Your task to perform on an android device: Open calendar and show me the third week of next month Image 0: 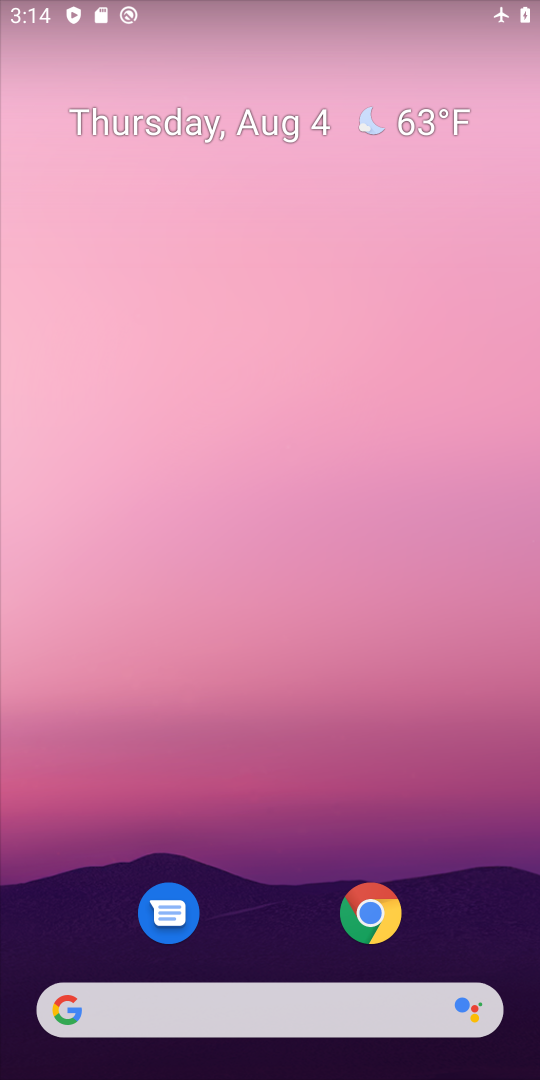
Step 0: drag from (317, 981) to (387, 7)
Your task to perform on an android device: Open calendar and show me the third week of next month Image 1: 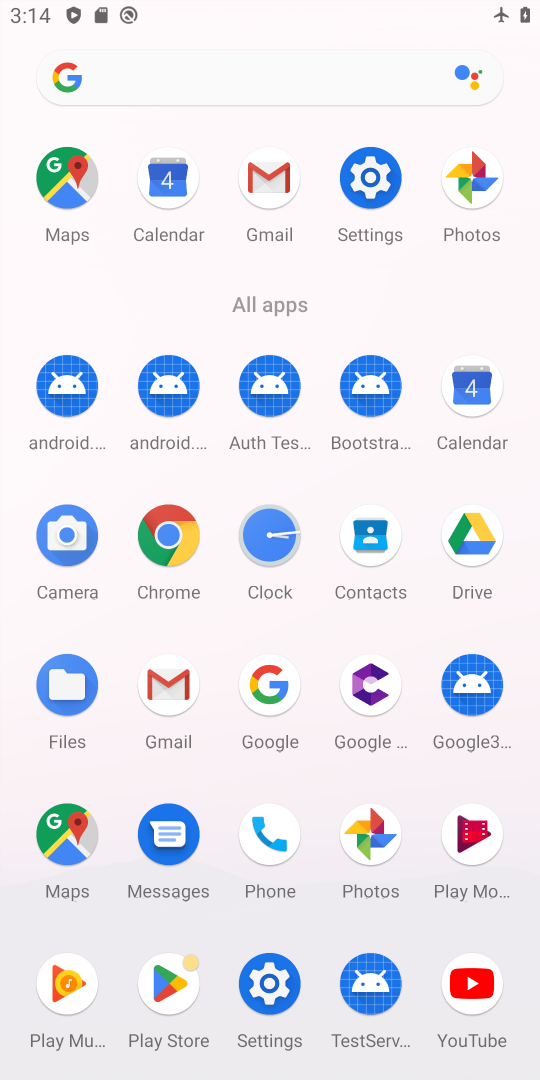
Step 1: click (476, 374)
Your task to perform on an android device: Open calendar and show me the third week of next month Image 2: 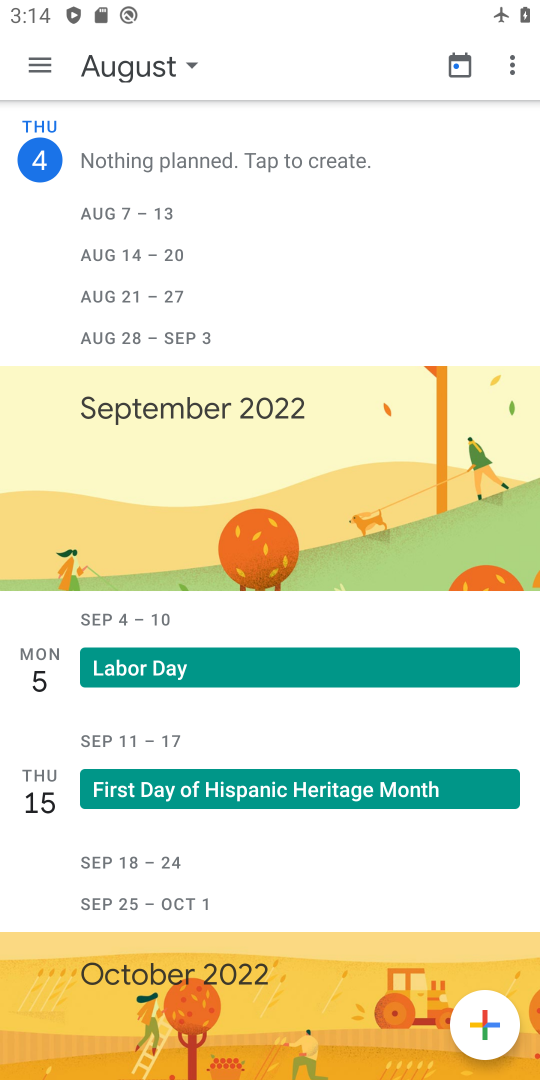
Step 2: click (191, 59)
Your task to perform on an android device: Open calendar and show me the third week of next month Image 3: 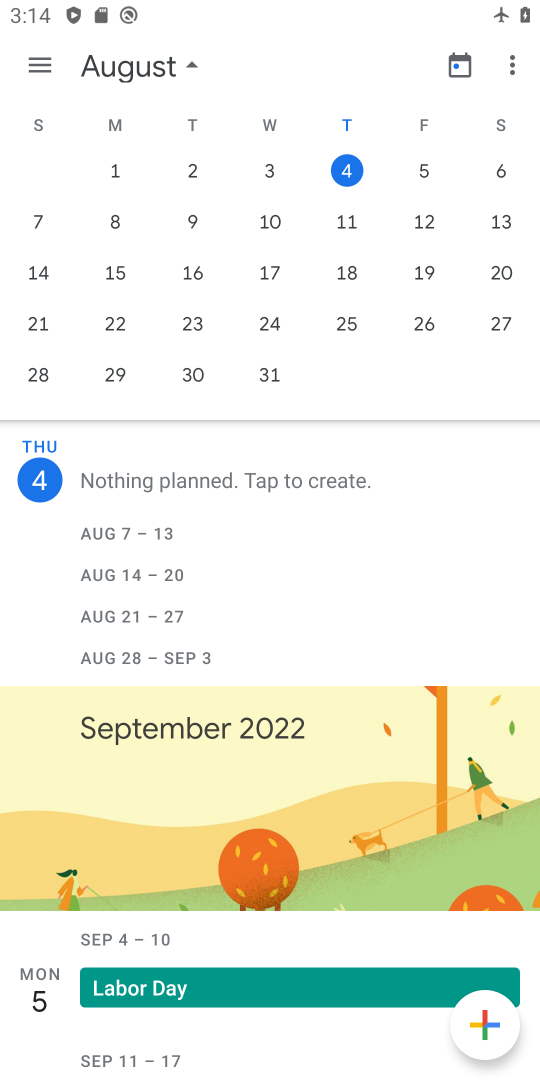
Step 3: click (266, 267)
Your task to perform on an android device: Open calendar and show me the third week of next month Image 4: 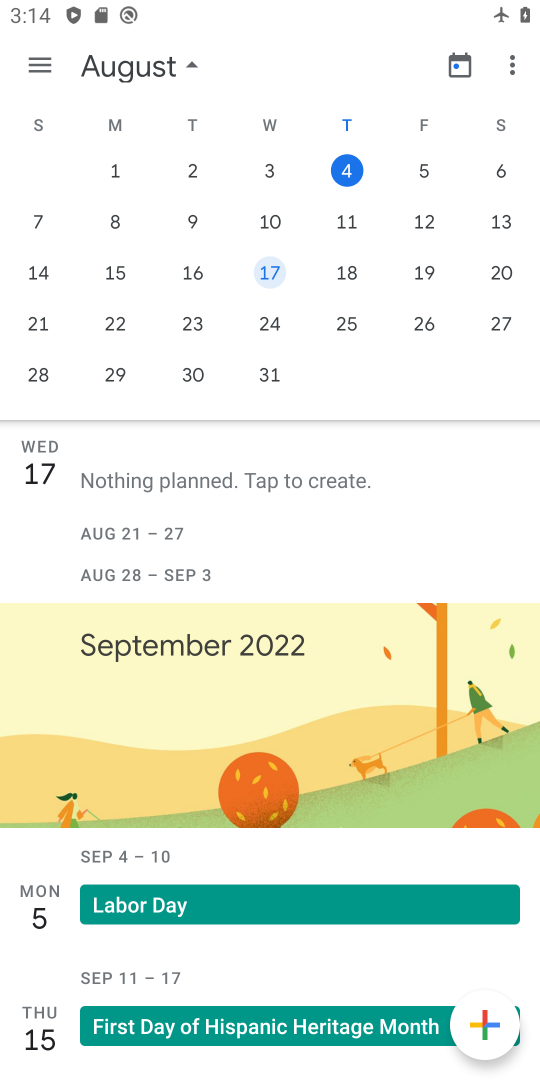
Step 4: click (33, 59)
Your task to perform on an android device: Open calendar and show me the third week of next month Image 5: 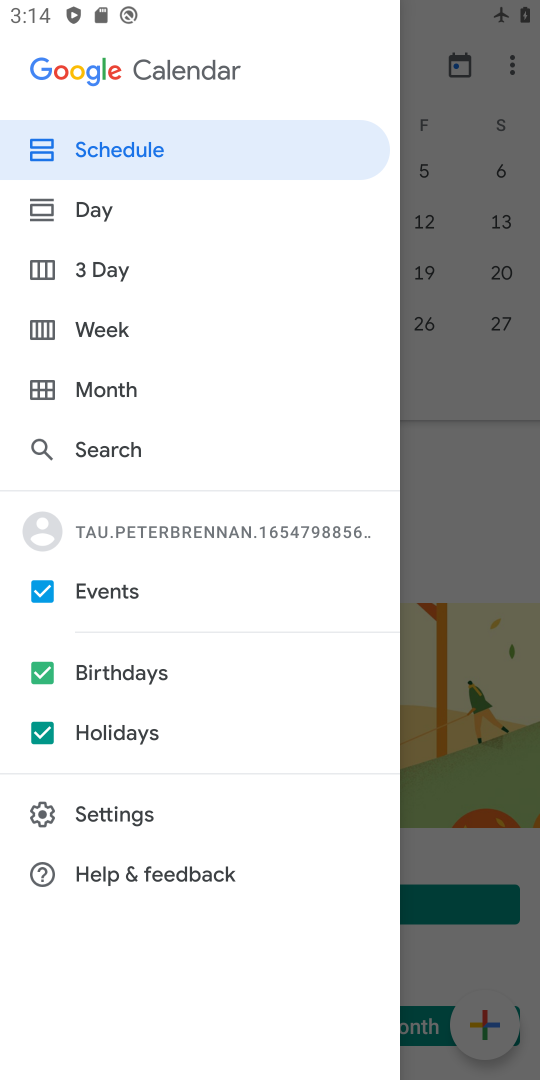
Step 5: click (101, 317)
Your task to perform on an android device: Open calendar and show me the third week of next month Image 6: 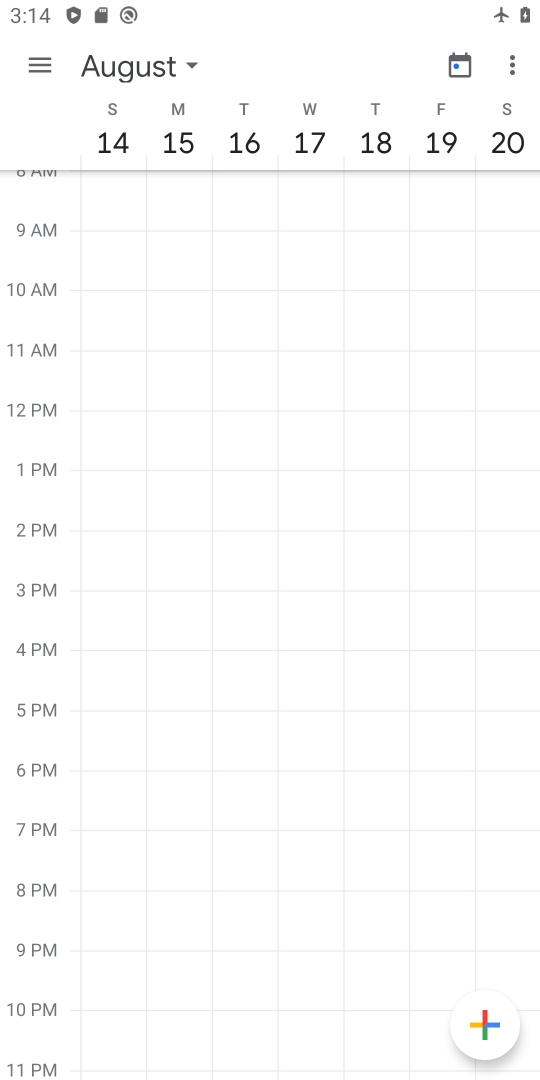
Step 6: task complete